Your task to perform on an android device: What is the news today? Image 0: 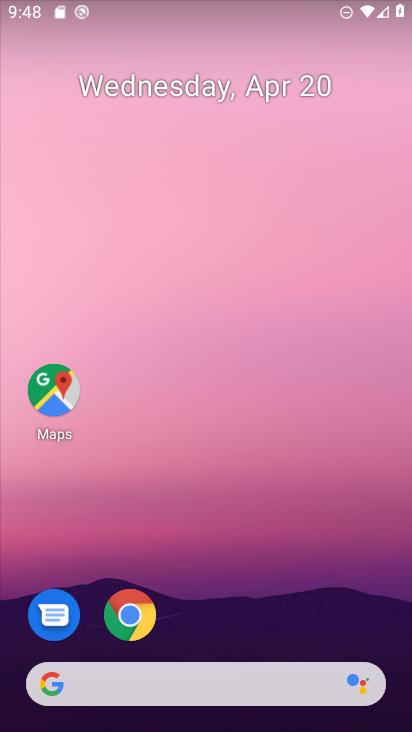
Step 0: drag from (219, 637) to (197, 109)
Your task to perform on an android device: What is the news today? Image 1: 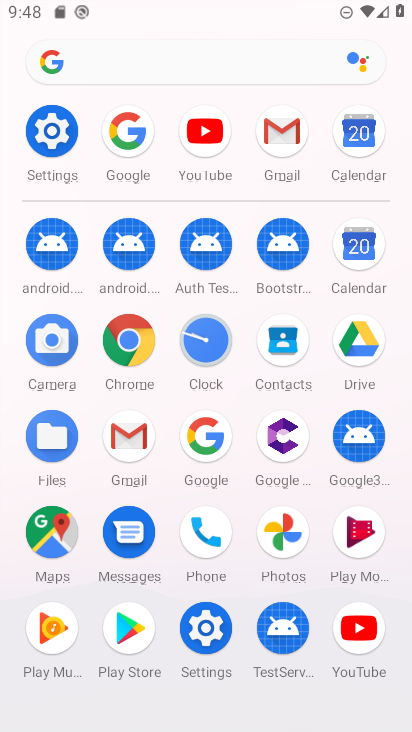
Step 1: click (128, 133)
Your task to perform on an android device: What is the news today? Image 2: 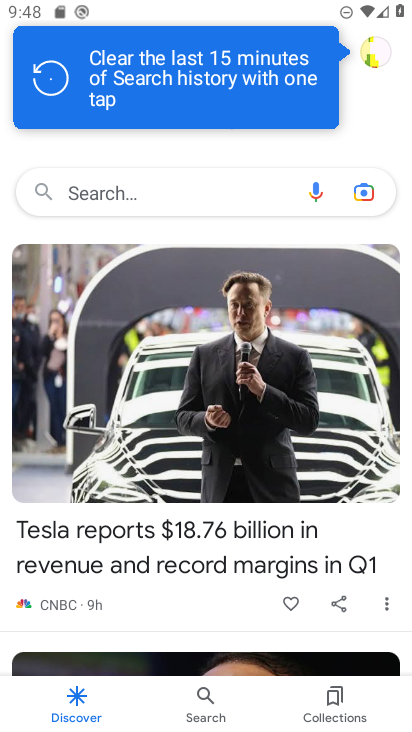
Step 2: click (165, 185)
Your task to perform on an android device: What is the news today? Image 3: 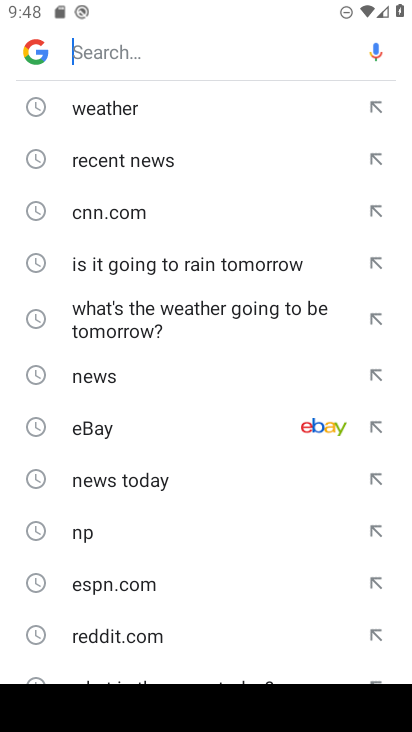
Step 3: click (137, 478)
Your task to perform on an android device: What is the news today? Image 4: 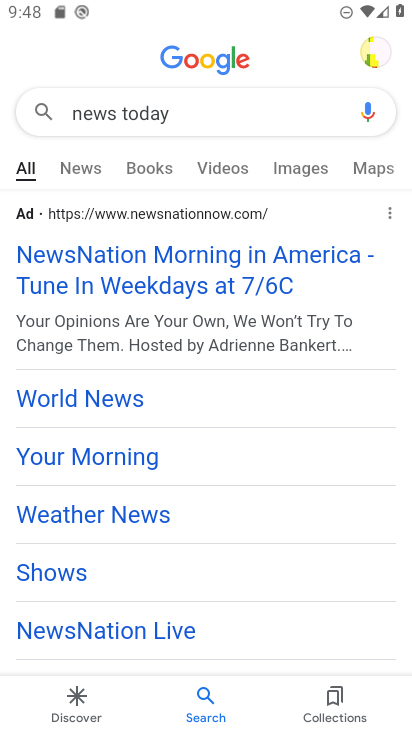
Step 4: drag from (228, 580) to (266, 350)
Your task to perform on an android device: What is the news today? Image 5: 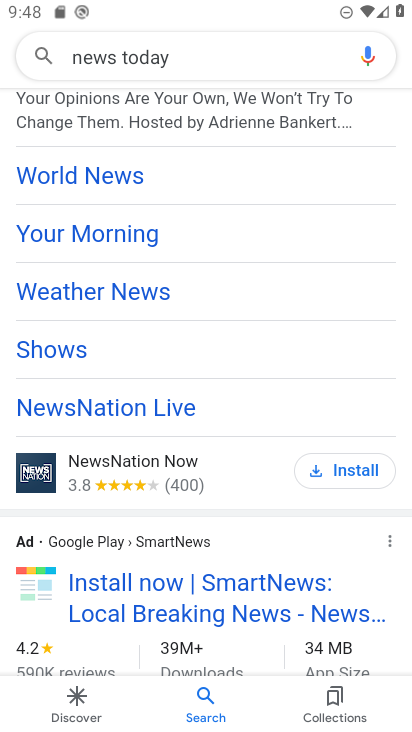
Step 5: drag from (207, 581) to (248, 343)
Your task to perform on an android device: What is the news today? Image 6: 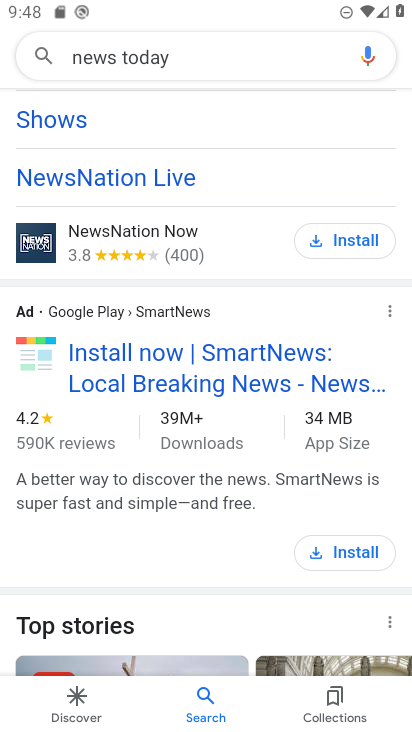
Step 6: drag from (195, 588) to (239, 310)
Your task to perform on an android device: What is the news today? Image 7: 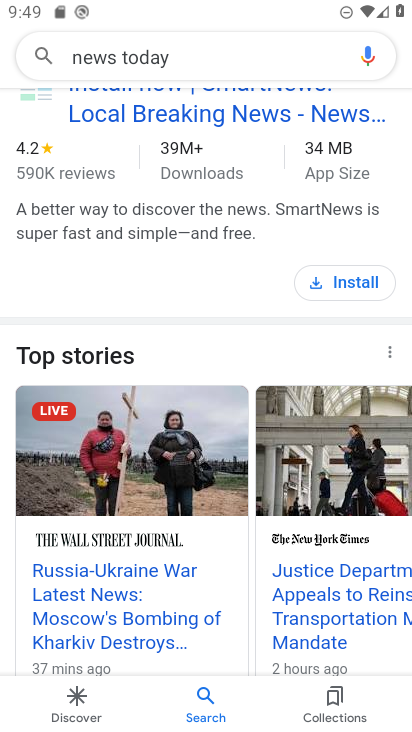
Step 7: drag from (170, 535) to (207, 409)
Your task to perform on an android device: What is the news today? Image 8: 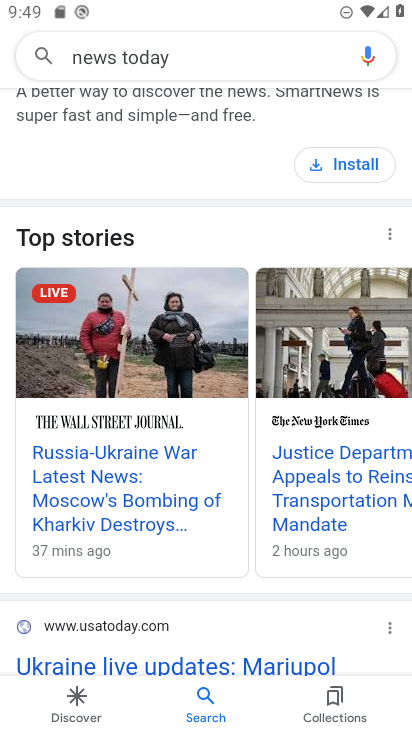
Step 8: click (176, 404)
Your task to perform on an android device: What is the news today? Image 9: 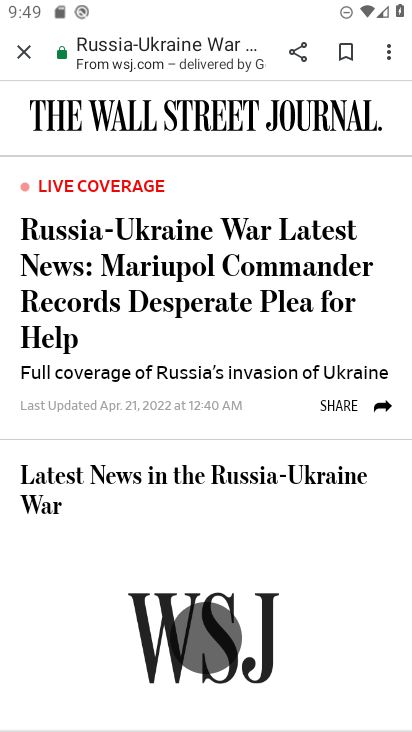
Step 9: task complete